Your task to perform on an android device: See recent photos Image 0: 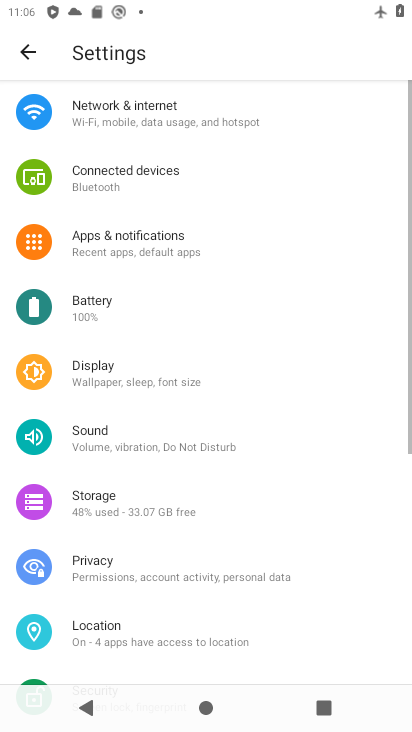
Step 0: press home button
Your task to perform on an android device: See recent photos Image 1: 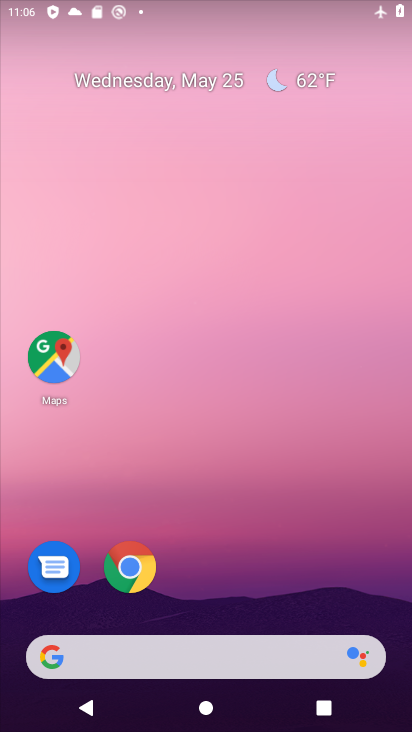
Step 1: drag from (365, 600) to (223, 103)
Your task to perform on an android device: See recent photos Image 2: 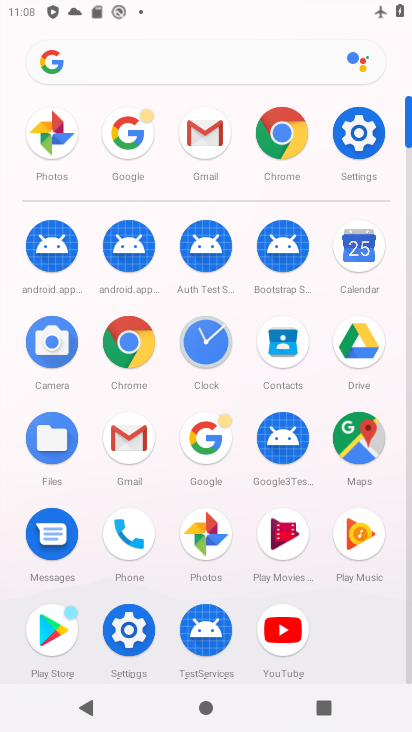
Step 2: click (200, 530)
Your task to perform on an android device: See recent photos Image 3: 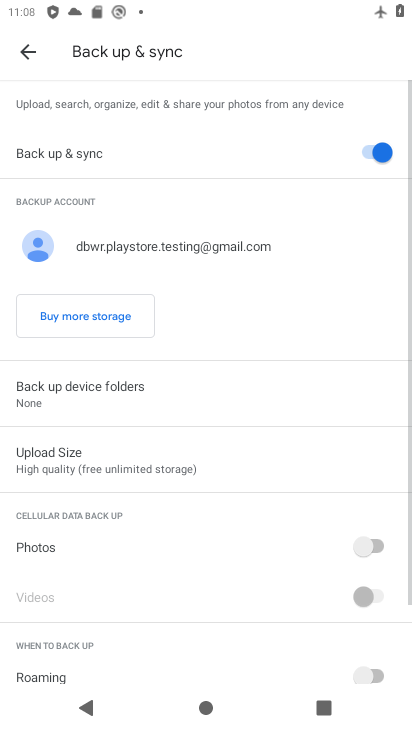
Step 3: task complete